Your task to perform on an android device: See recent photos Image 0: 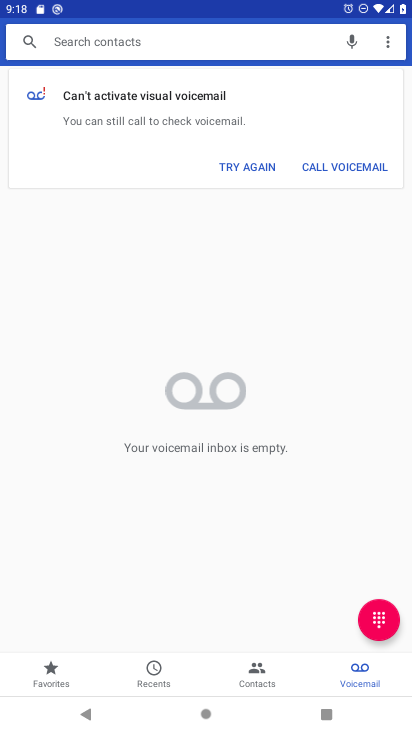
Step 0: press home button
Your task to perform on an android device: See recent photos Image 1: 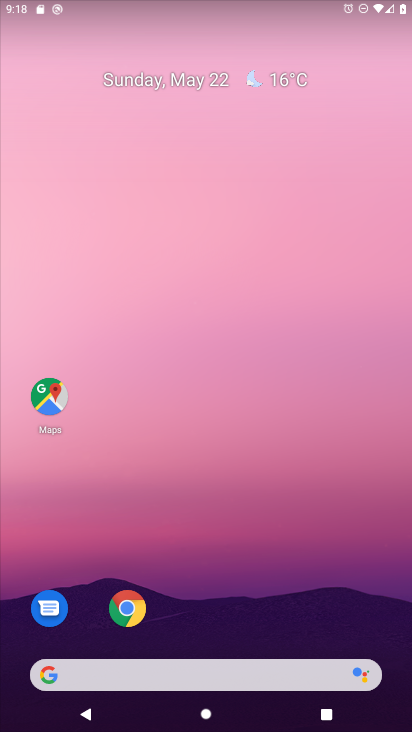
Step 1: drag from (157, 725) to (173, 35)
Your task to perform on an android device: See recent photos Image 2: 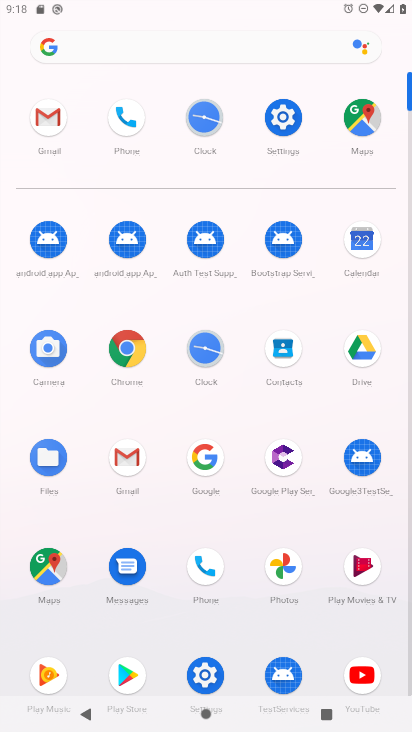
Step 2: click (289, 564)
Your task to perform on an android device: See recent photos Image 3: 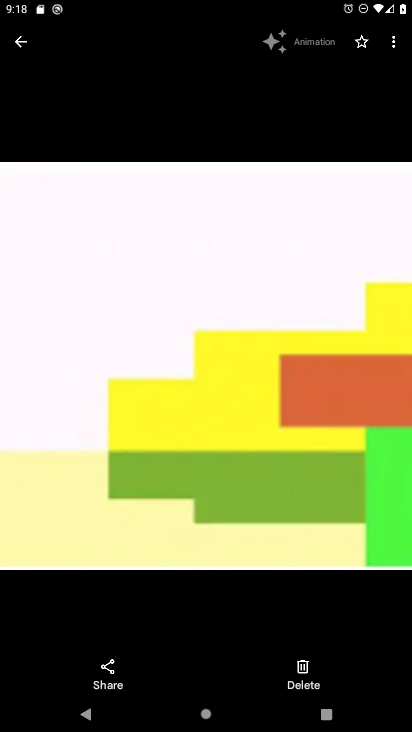
Step 3: task complete